Your task to perform on an android device: Is it going to rain this weekend? Image 0: 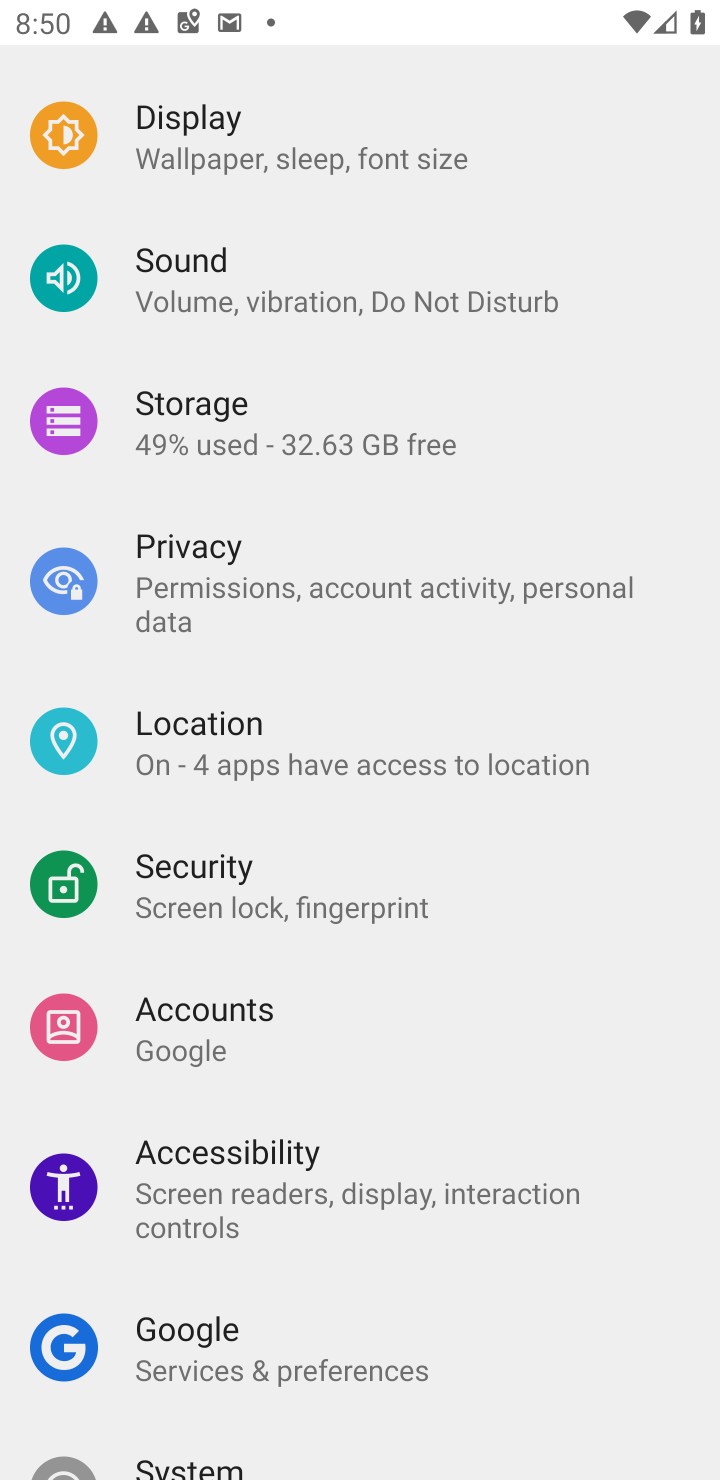
Step 0: task complete